Your task to perform on an android device: change keyboard looks Image 0: 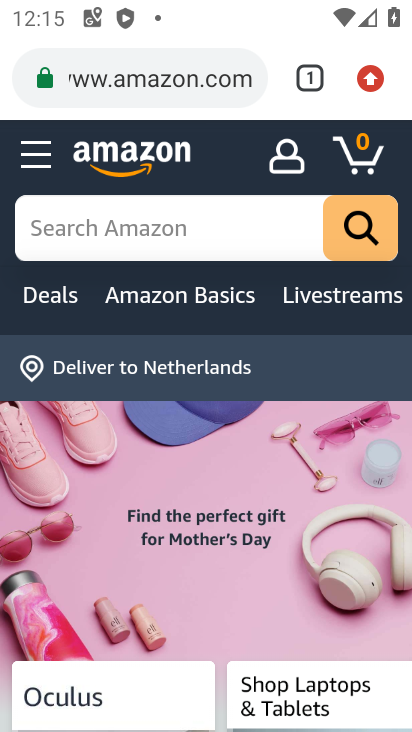
Step 0: press home button
Your task to perform on an android device: change keyboard looks Image 1: 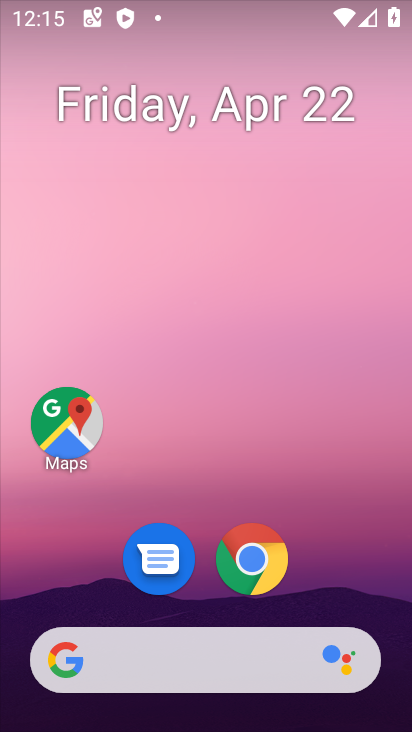
Step 1: drag from (344, 485) to (283, 164)
Your task to perform on an android device: change keyboard looks Image 2: 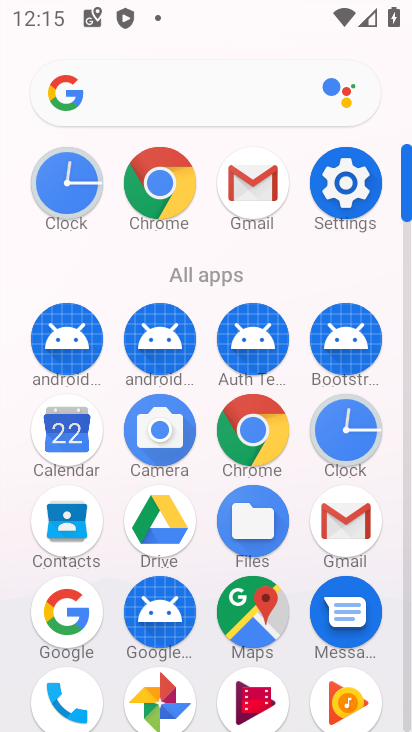
Step 2: click (353, 199)
Your task to perform on an android device: change keyboard looks Image 3: 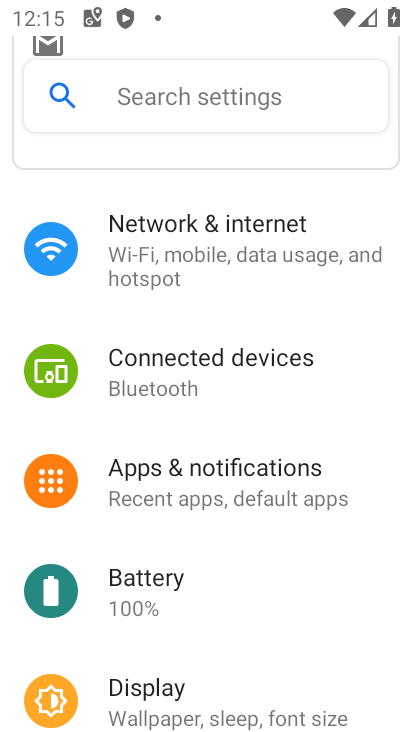
Step 3: drag from (234, 622) to (205, 248)
Your task to perform on an android device: change keyboard looks Image 4: 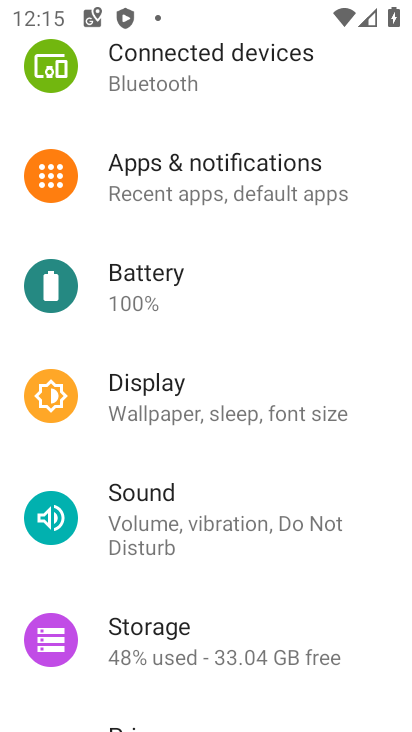
Step 4: drag from (230, 637) to (226, 237)
Your task to perform on an android device: change keyboard looks Image 5: 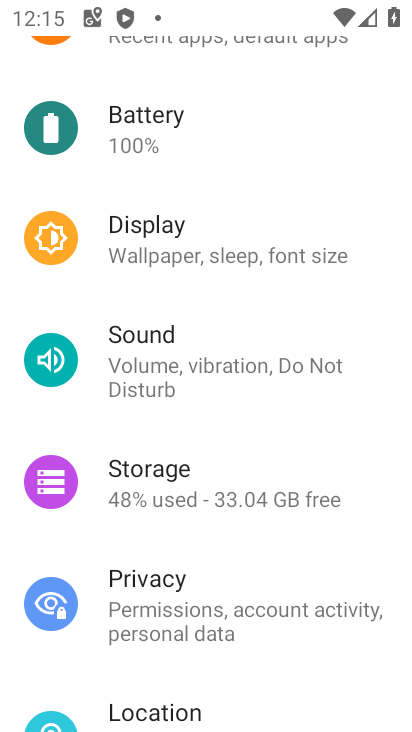
Step 5: drag from (189, 615) to (274, 275)
Your task to perform on an android device: change keyboard looks Image 6: 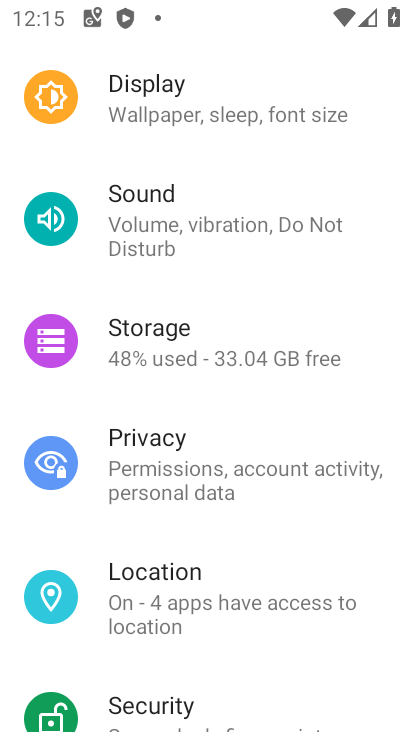
Step 6: drag from (226, 671) to (193, 253)
Your task to perform on an android device: change keyboard looks Image 7: 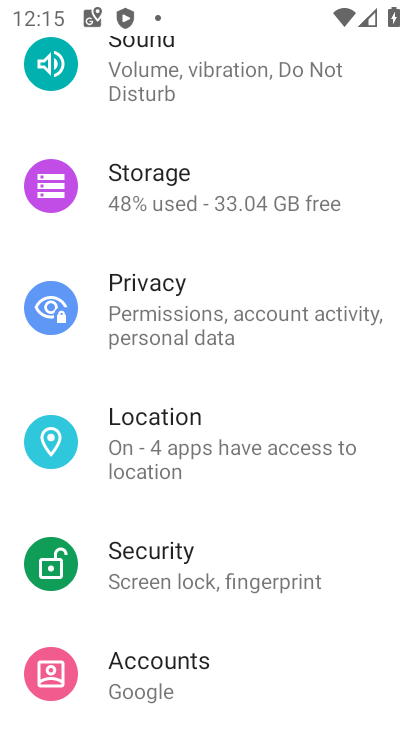
Step 7: drag from (197, 631) to (197, 228)
Your task to perform on an android device: change keyboard looks Image 8: 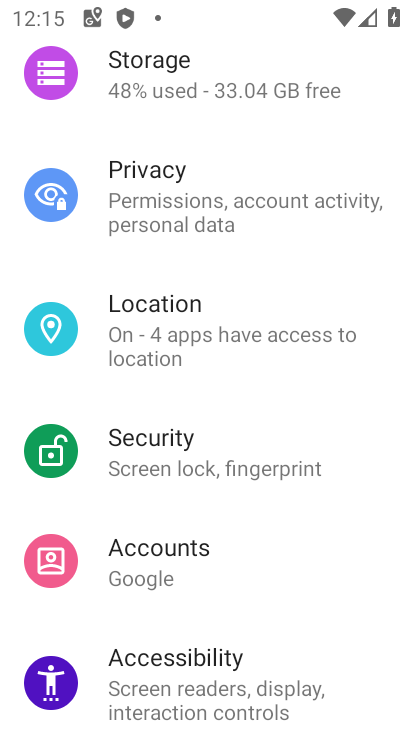
Step 8: drag from (219, 705) to (249, 290)
Your task to perform on an android device: change keyboard looks Image 9: 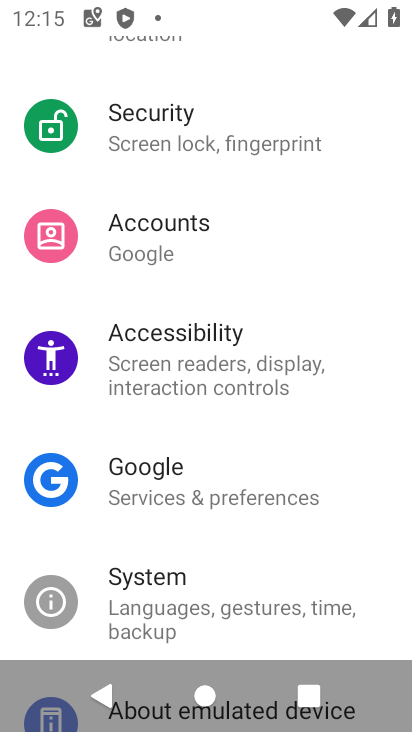
Step 9: click (166, 611)
Your task to perform on an android device: change keyboard looks Image 10: 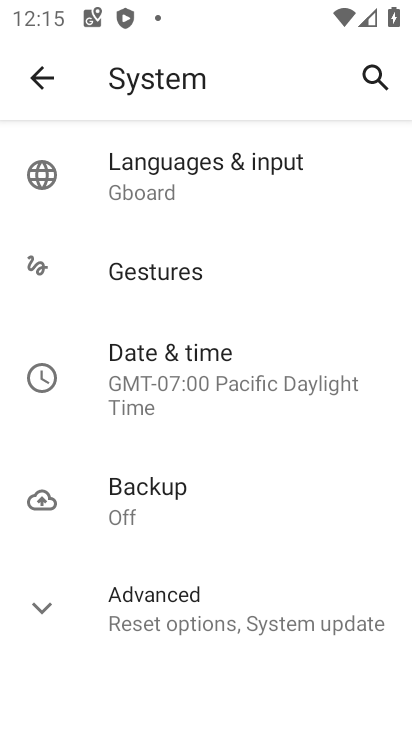
Step 10: click (204, 195)
Your task to perform on an android device: change keyboard looks Image 11: 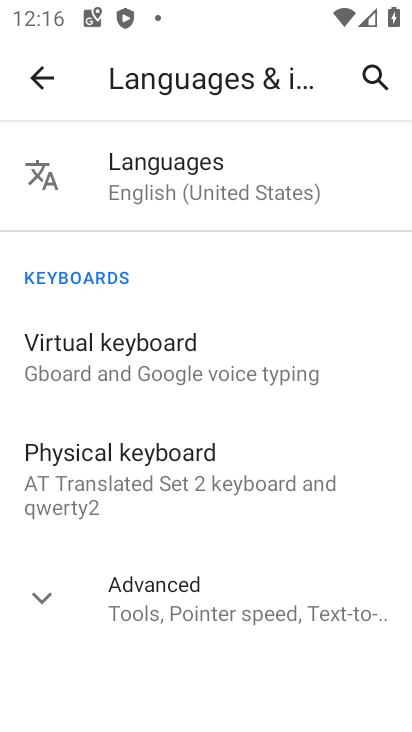
Step 11: click (84, 350)
Your task to perform on an android device: change keyboard looks Image 12: 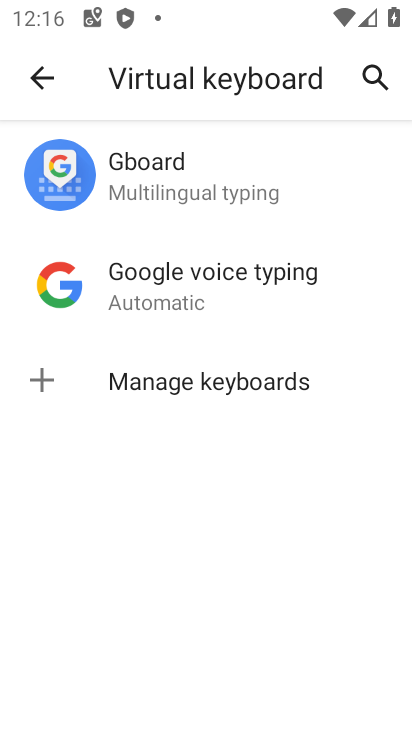
Step 12: click (191, 209)
Your task to perform on an android device: change keyboard looks Image 13: 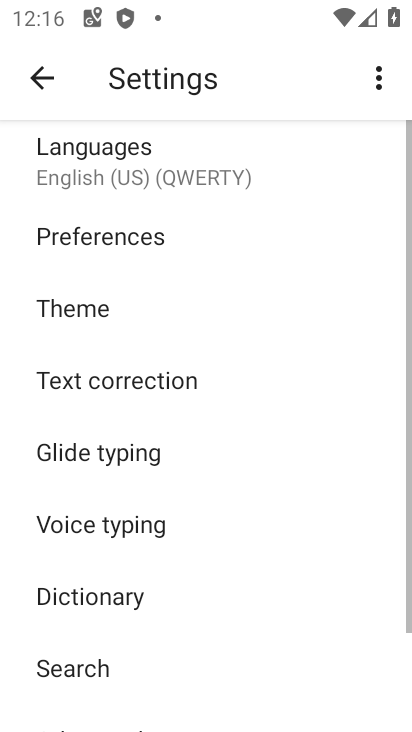
Step 13: click (107, 301)
Your task to perform on an android device: change keyboard looks Image 14: 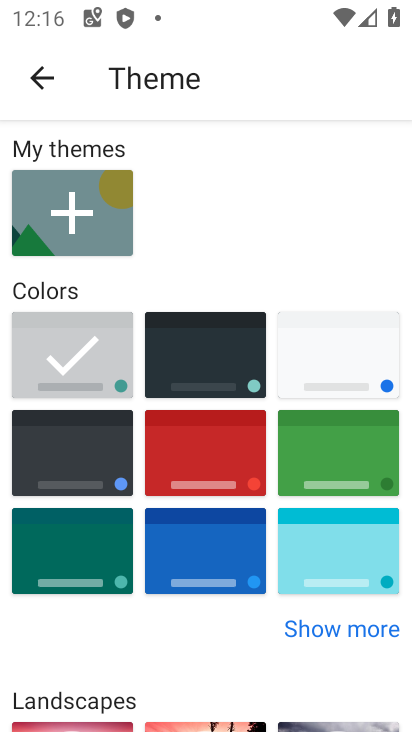
Step 14: click (209, 369)
Your task to perform on an android device: change keyboard looks Image 15: 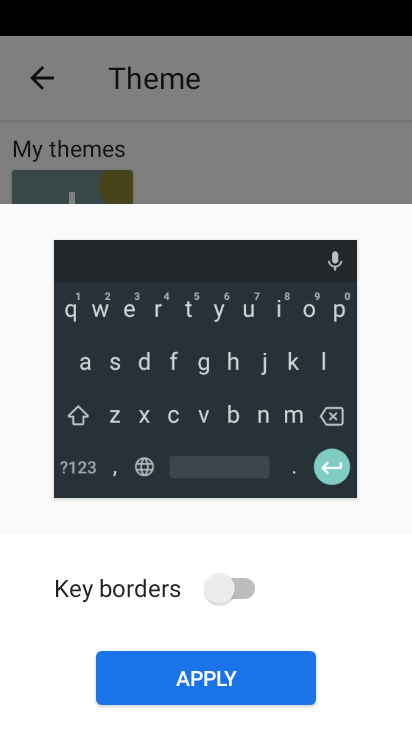
Step 15: click (196, 681)
Your task to perform on an android device: change keyboard looks Image 16: 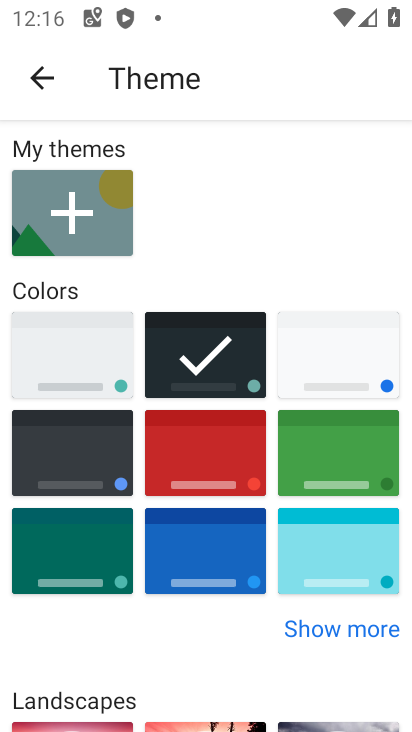
Step 16: task complete